Your task to perform on an android device: Is it going to rain tomorrow? Image 0: 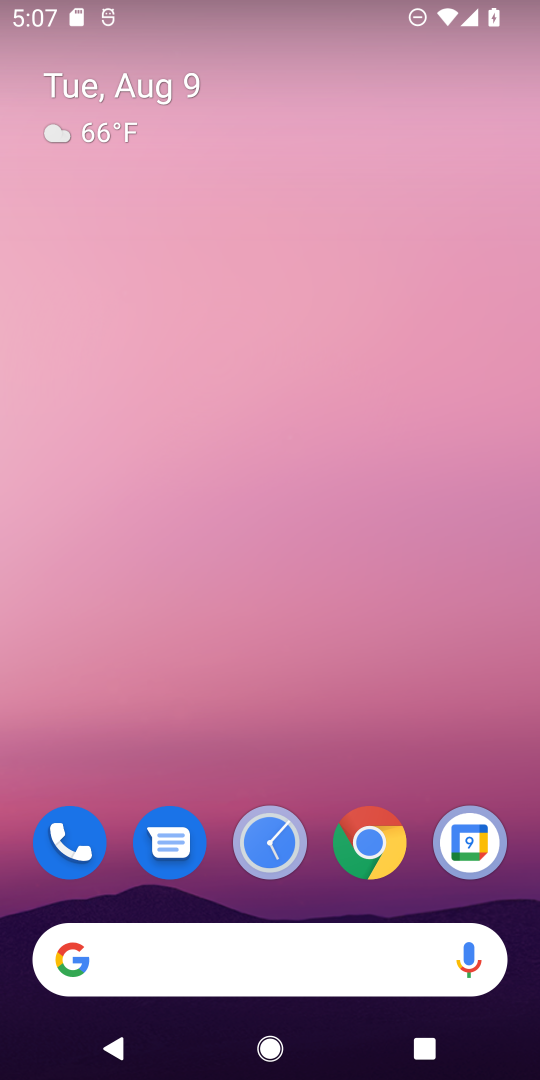
Step 0: drag from (366, 968) to (351, 0)
Your task to perform on an android device: Is it going to rain tomorrow? Image 1: 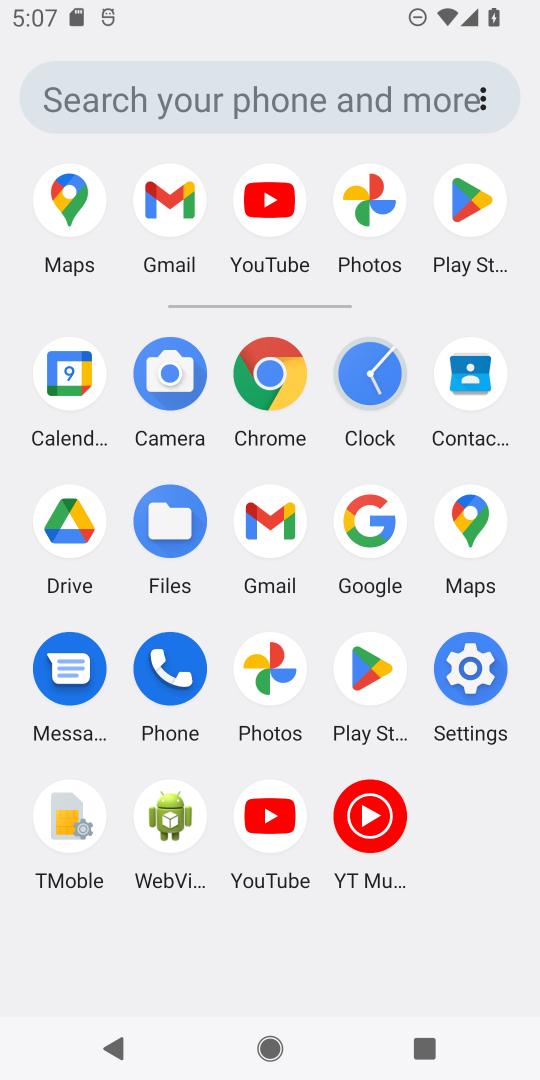
Step 1: click (379, 525)
Your task to perform on an android device: Is it going to rain tomorrow? Image 2: 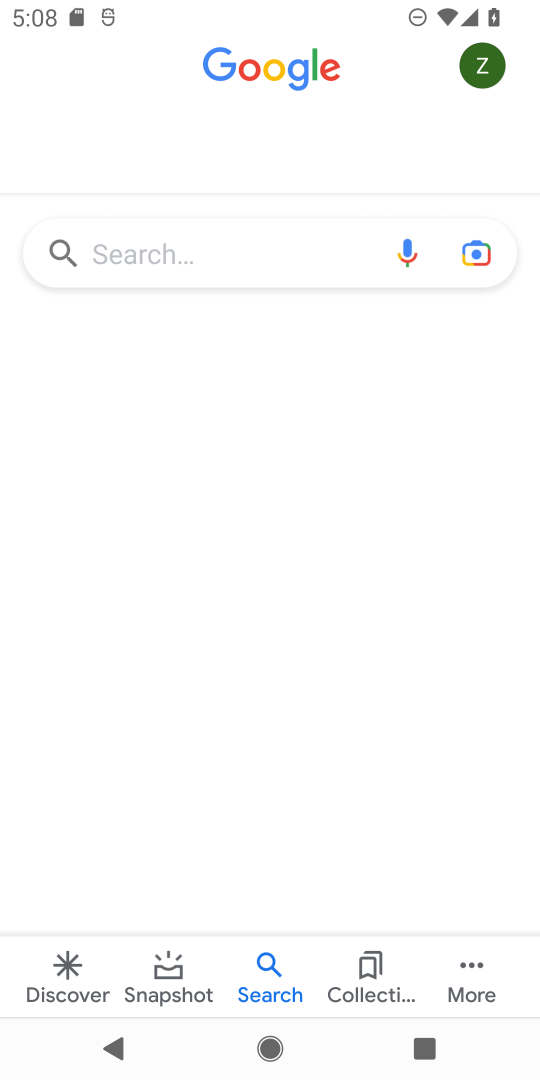
Step 2: click (348, 249)
Your task to perform on an android device: Is it going to rain tomorrow? Image 3: 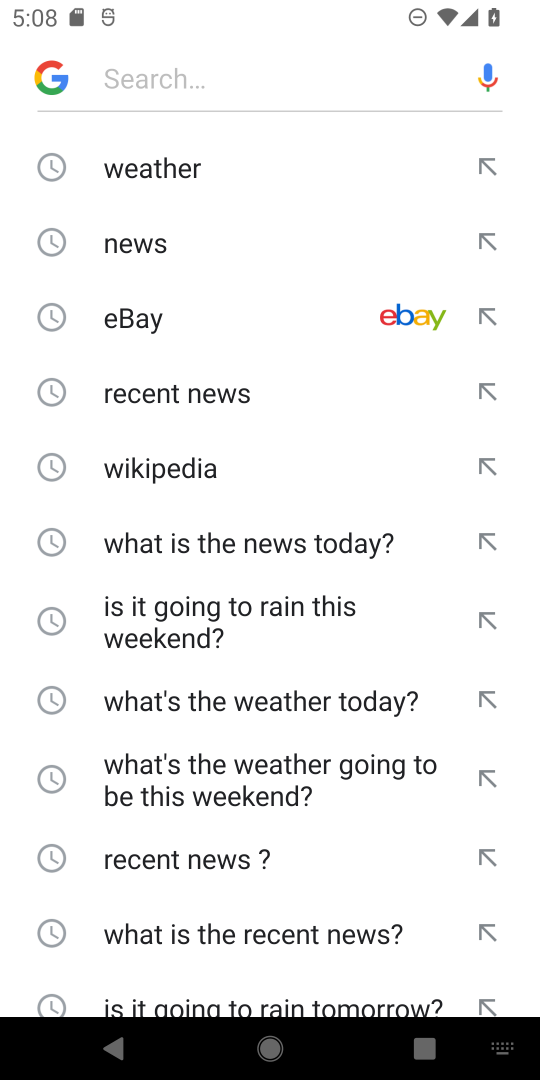
Step 3: click (313, 1006)
Your task to perform on an android device: Is it going to rain tomorrow? Image 4: 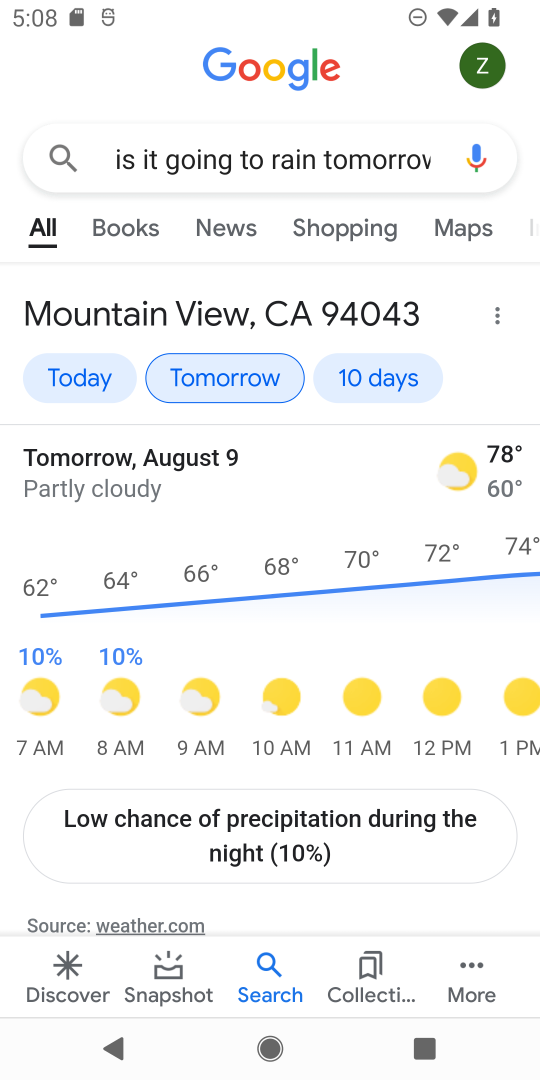
Step 4: task complete